Your task to perform on an android device: check data usage Image 0: 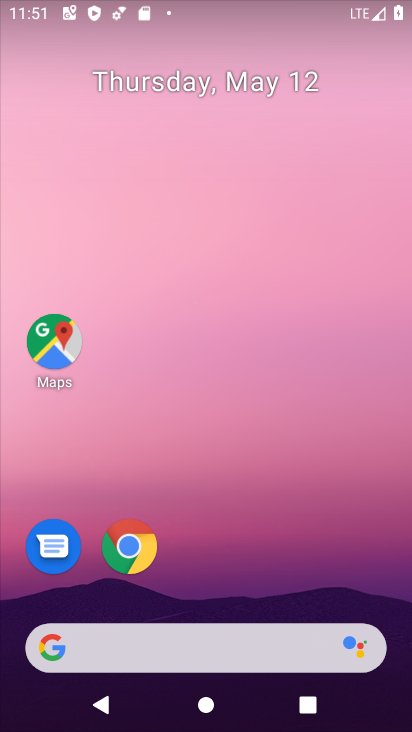
Step 0: drag from (198, 520) to (267, 10)
Your task to perform on an android device: check data usage Image 1: 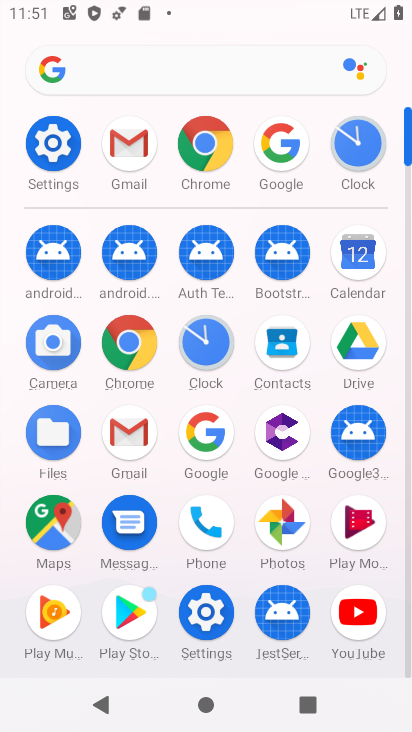
Step 1: click (51, 157)
Your task to perform on an android device: check data usage Image 2: 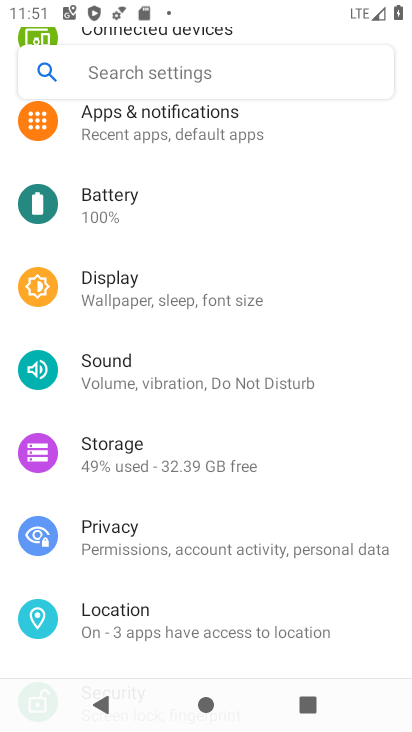
Step 2: drag from (248, 222) to (234, 533)
Your task to perform on an android device: check data usage Image 3: 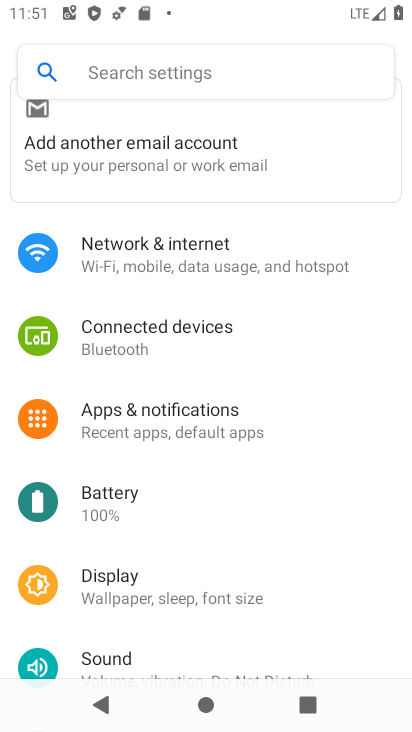
Step 3: click (185, 252)
Your task to perform on an android device: check data usage Image 4: 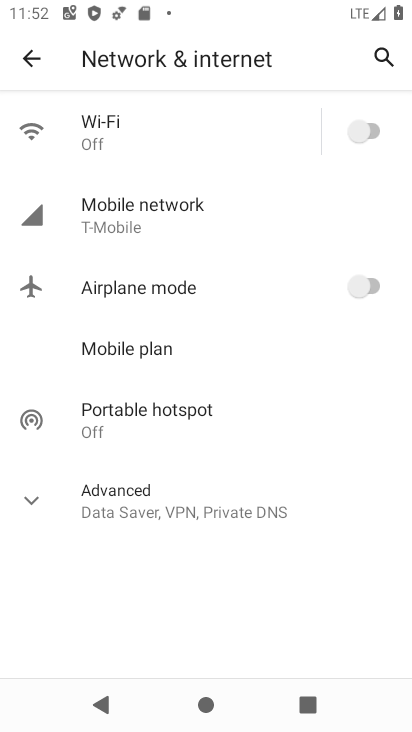
Step 4: click (123, 222)
Your task to perform on an android device: check data usage Image 5: 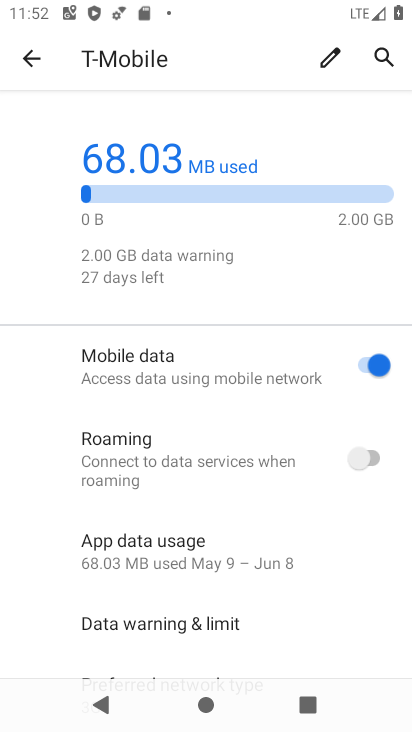
Step 5: click (160, 549)
Your task to perform on an android device: check data usage Image 6: 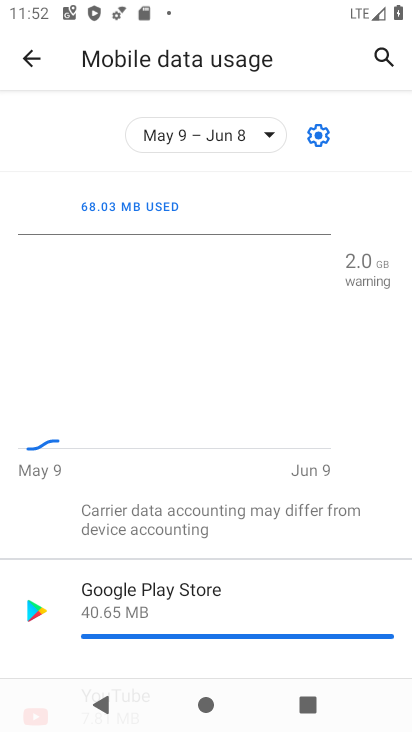
Step 6: task complete